Your task to perform on an android device: Search for seafood restaurants on Google Maps Image 0: 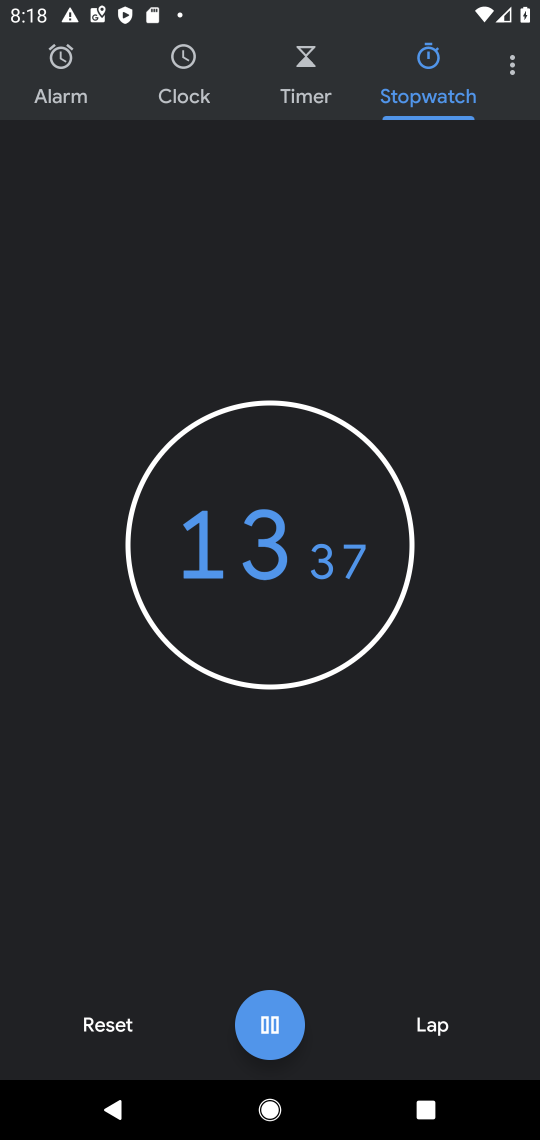
Step 0: press home button
Your task to perform on an android device: Search for seafood restaurants on Google Maps Image 1: 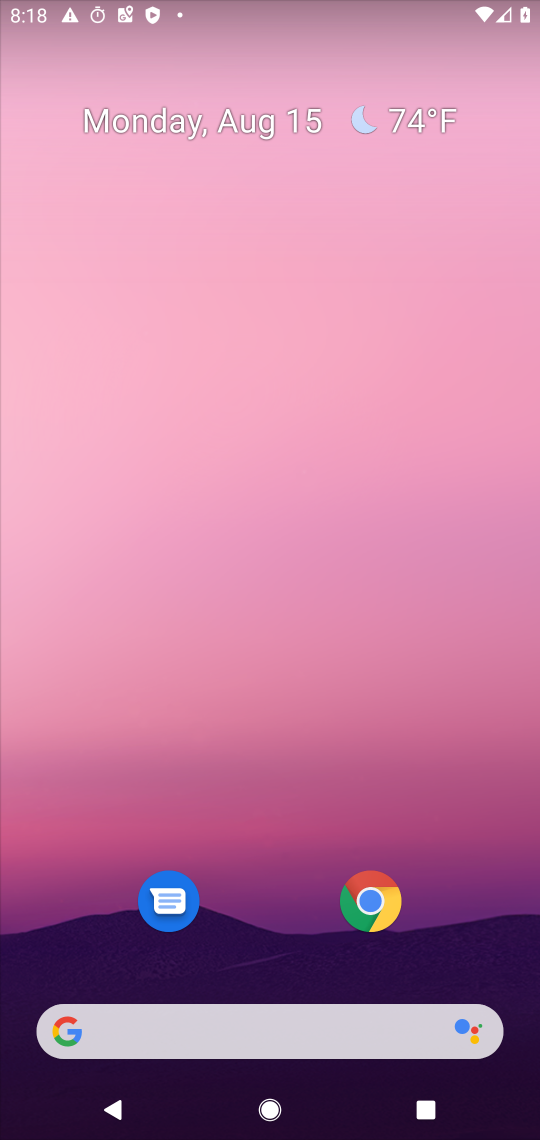
Step 1: drag from (280, 904) to (336, 127)
Your task to perform on an android device: Search for seafood restaurants on Google Maps Image 2: 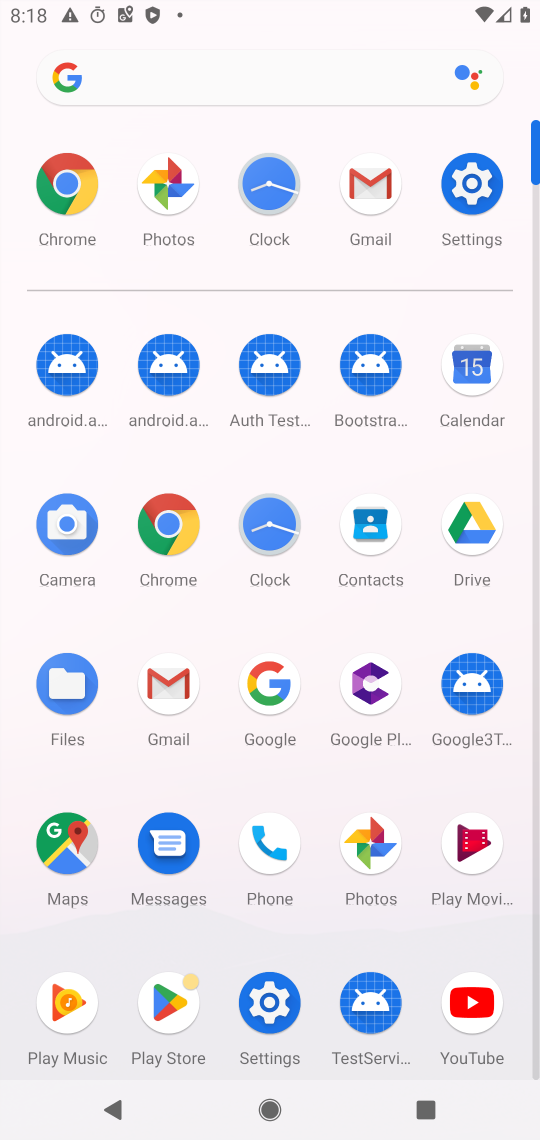
Step 2: click (65, 862)
Your task to perform on an android device: Search for seafood restaurants on Google Maps Image 3: 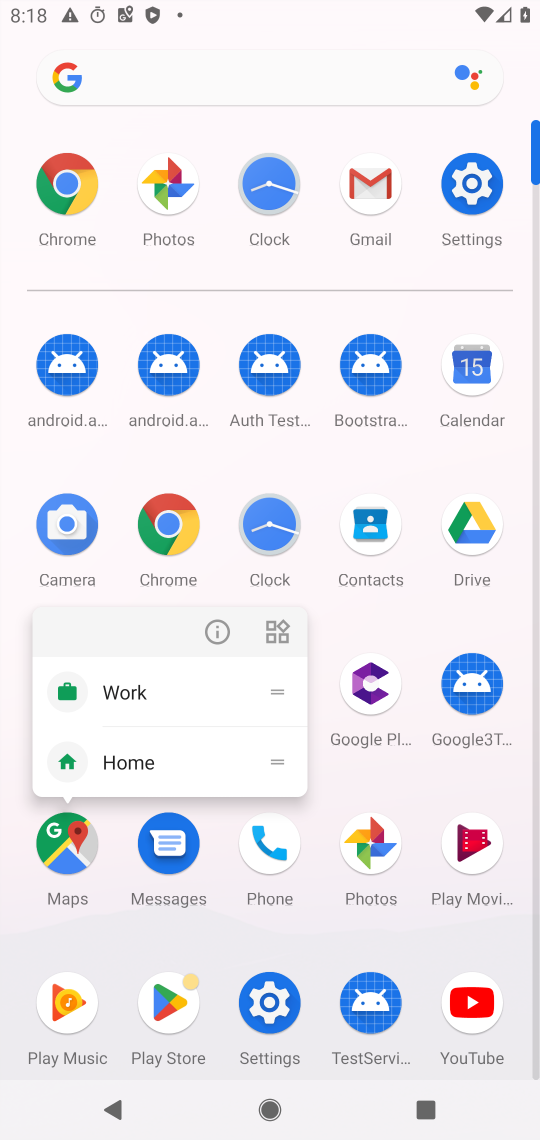
Step 3: click (65, 862)
Your task to perform on an android device: Search for seafood restaurants on Google Maps Image 4: 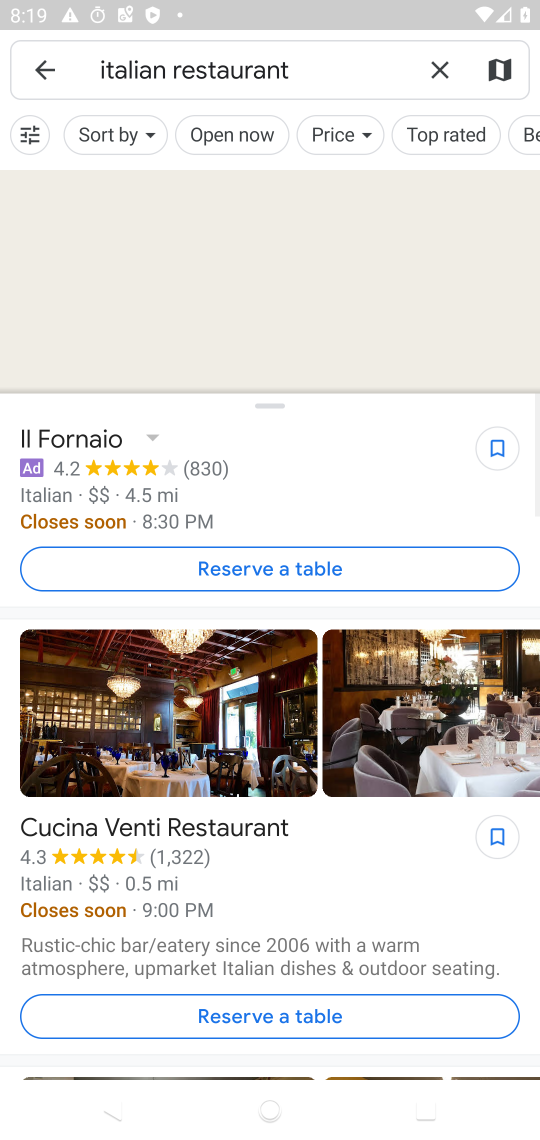
Step 4: click (131, 64)
Your task to perform on an android device: Search for seafood restaurants on Google Maps Image 5: 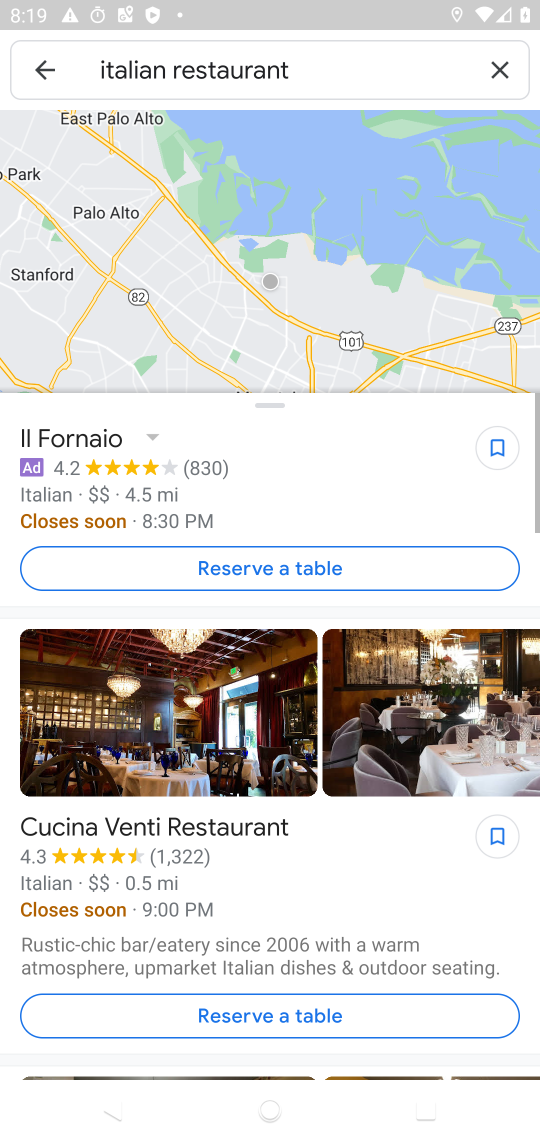
Step 5: click (140, 71)
Your task to perform on an android device: Search for seafood restaurants on Google Maps Image 6: 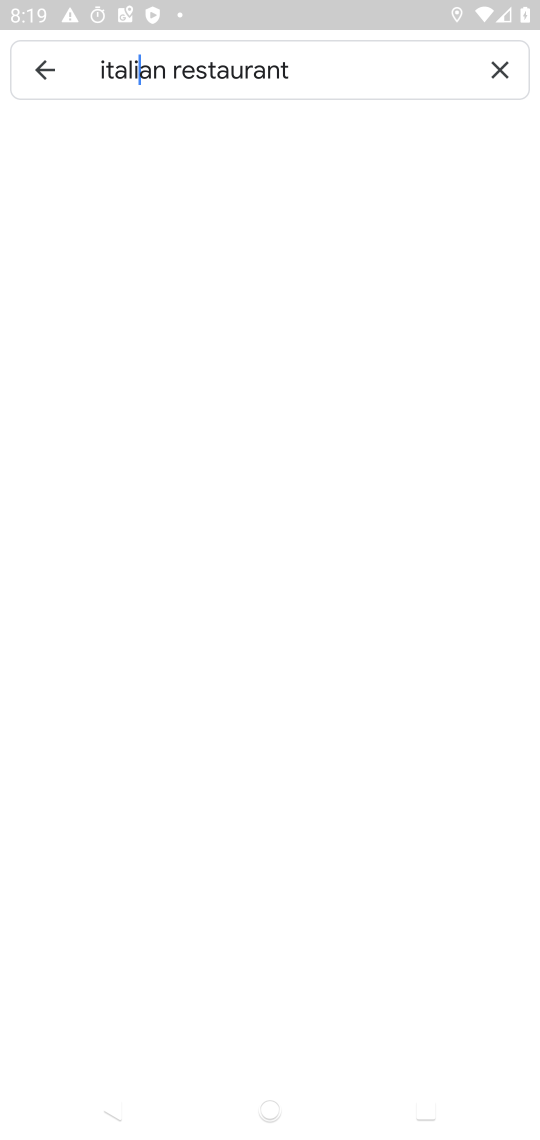
Step 6: click (145, 71)
Your task to perform on an android device: Search for seafood restaurants on Google Maps Image 7: 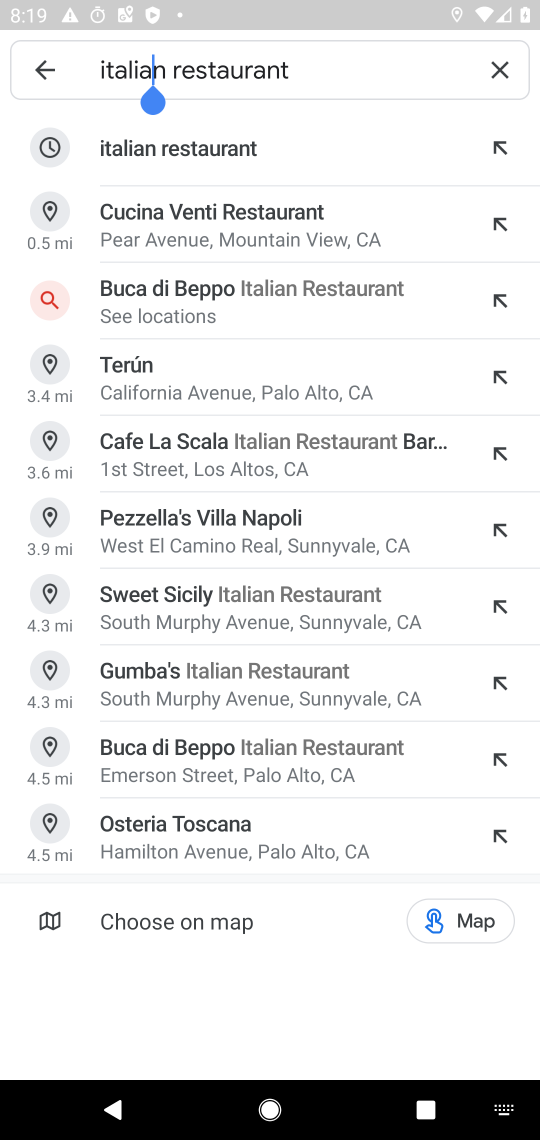
Step 7: click (125, 82)
Your task to perform on an android device: Search for seafood restaurants on Google Maps Image 8: 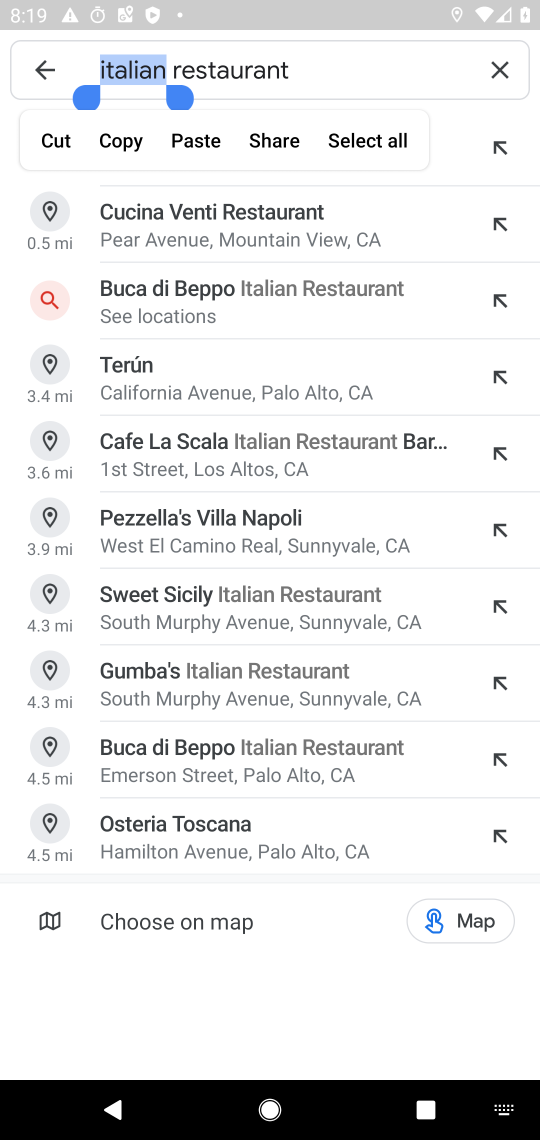
Step 8: type "seafood"
Your task to perform on an android device: Search for seafood restaurants on Google Maps Image 9: 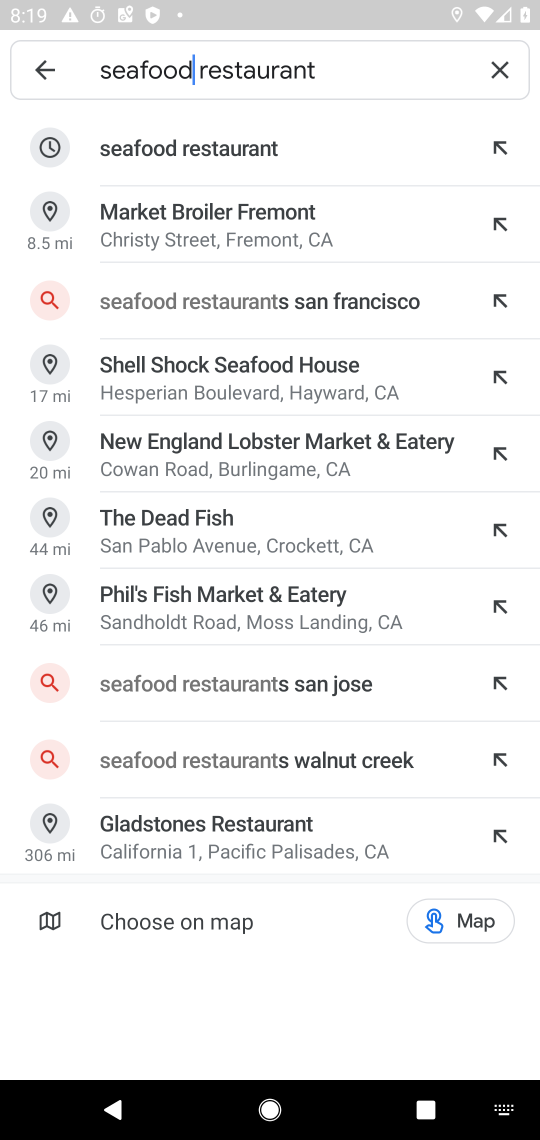
Step 9: click (202, 154)
Your task to perform on an android device: Search for seafood restaurants on Google Maps Image 10: 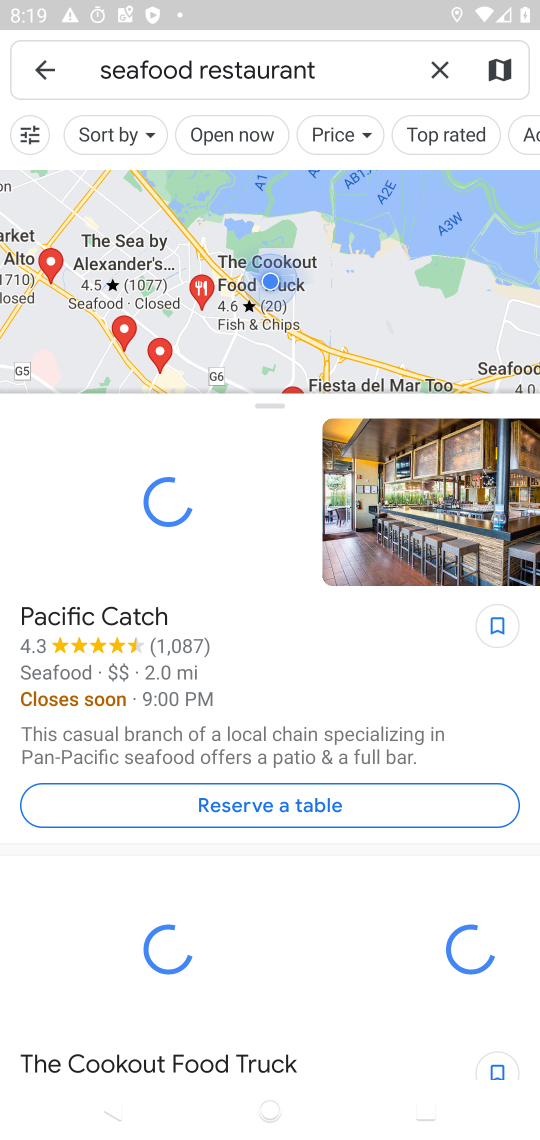
Step 10: task complete